Your task to perform on an android device: change your default location settings in chrome Image 0: 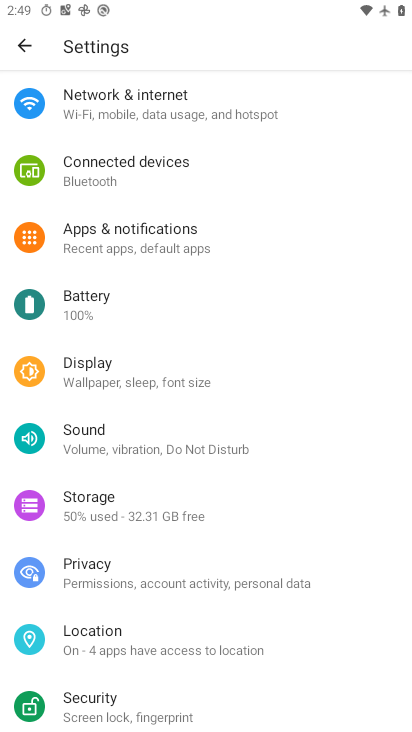
Step 0: click (156, 633)
Your task to perform on an android device: change your default location settings in chrome Image 1: 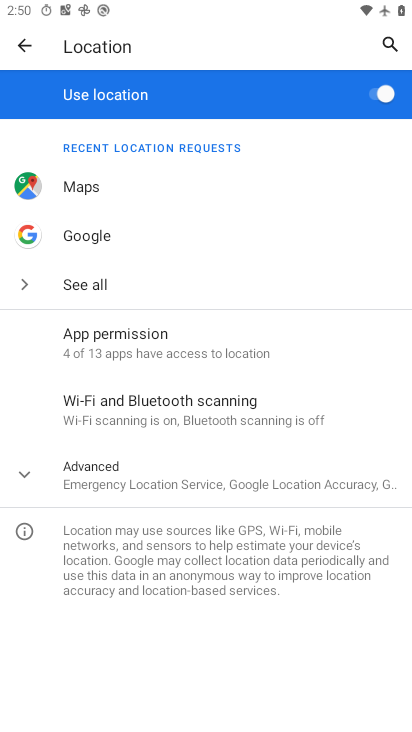
Step 1: click (378, 98)
Your task to perform on an android device: change your default location settings in chrome Image 2: 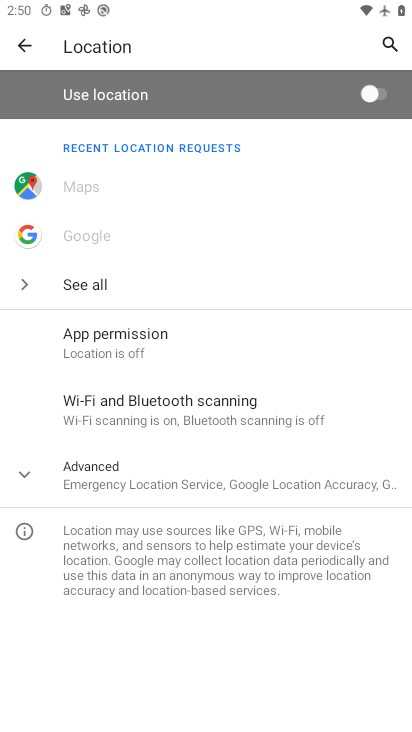
Step 2: task complete